Your task to perform on an android device: check storage Image 0: 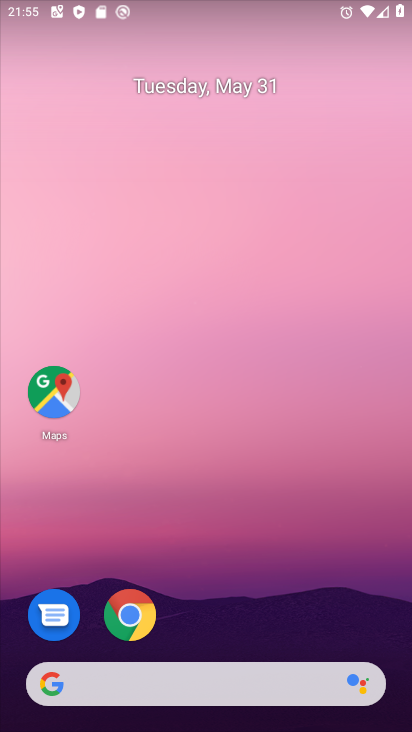
Step 0: drag from (203, 644) to (196, 218)
Your task to perform on an android device: check storage Image 1: 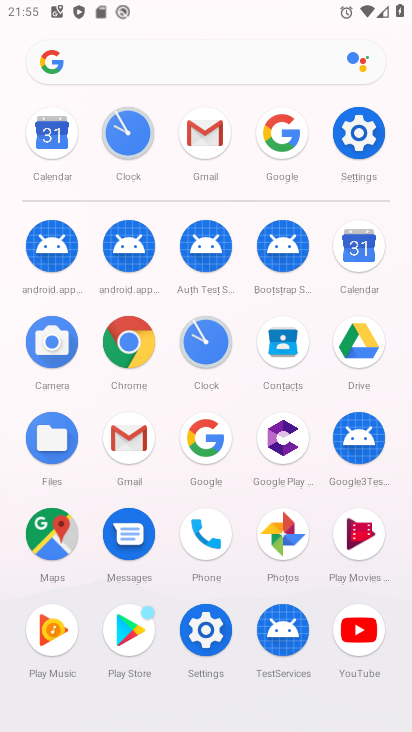
Step 1: click (350, 124)
Your task to perform on an android device: check storage Image 2: 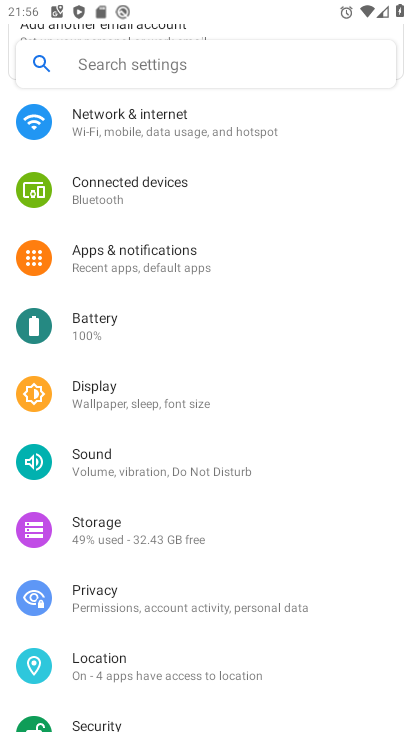
Step 2: click (162, 548)
Your task to perform on an android device: check storage Image 3: 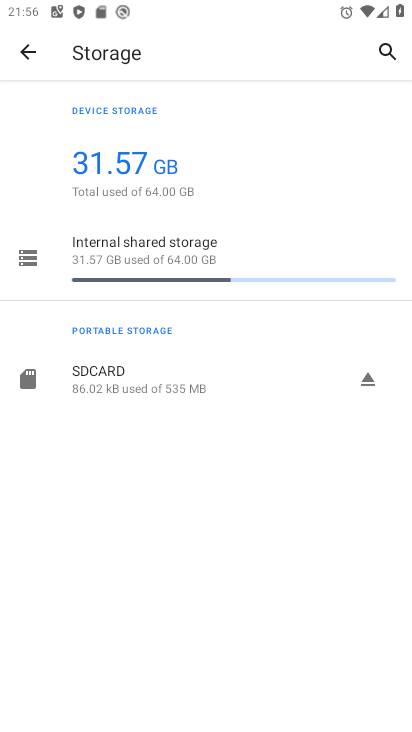
Step 3: task complete